Your task to perform on an android device: change the clock style Image 0: 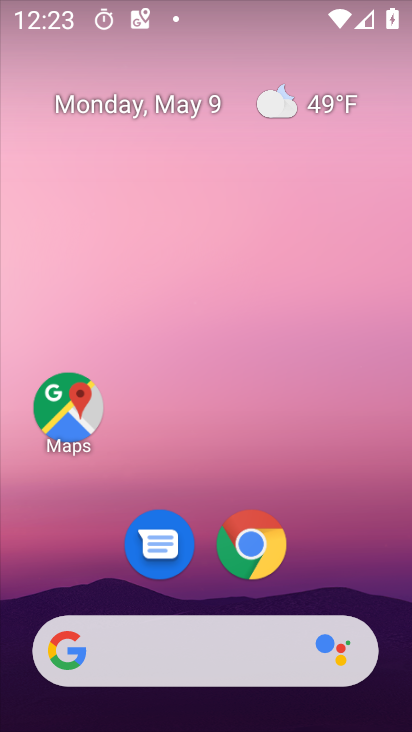
Step 0: drag from (268, 608) to (241, 36)
Your task to perform on an android device: change the clock style Image 1: 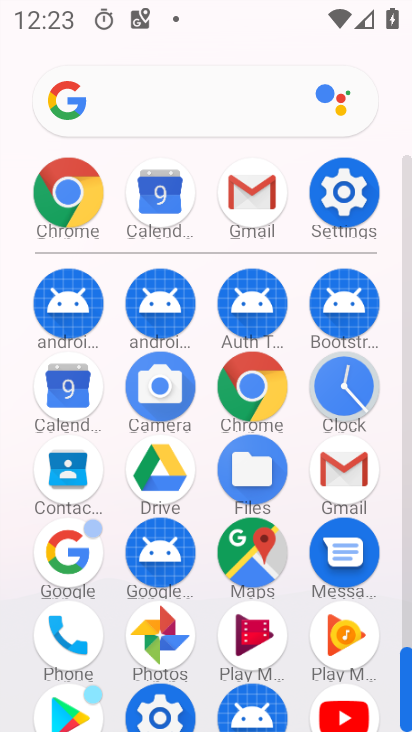
Step 1: click (350, 399)
Your task to perform on an android device: change the clock style Image 2: 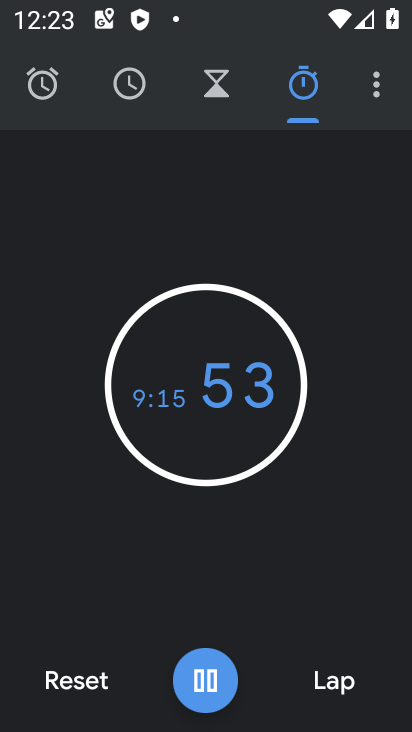
Step 2: click (389, 91)
Your task to perform on an android device: change the clock style Image 3: 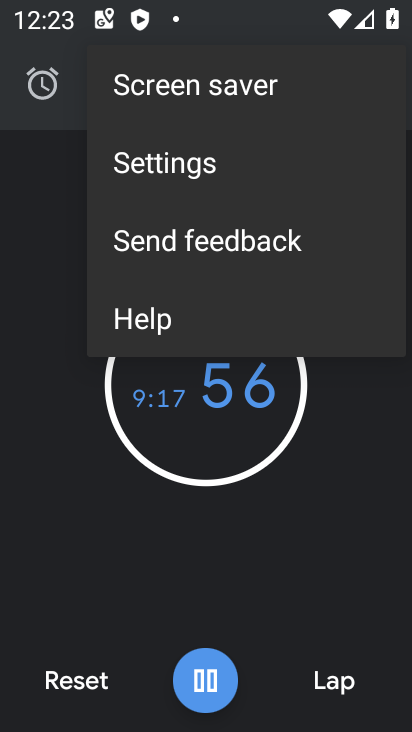
Step 3: click (218, 163)
Your task to perform on an android device: change the clock style Image 4: 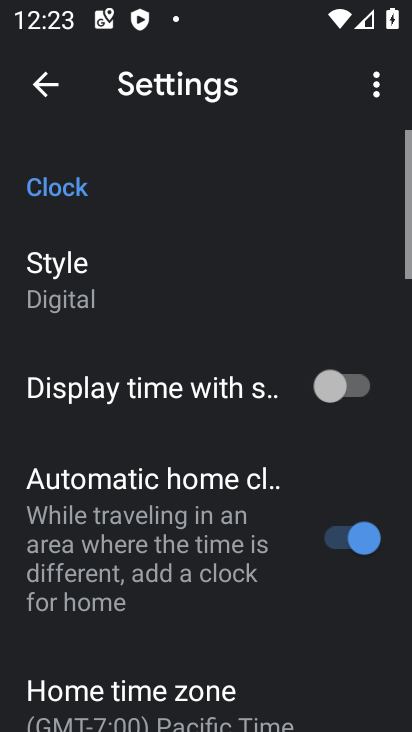
Step 4: drag from (205, 491) to (185, 144)
Your task to perform on an android device: change the clock style Image 5: 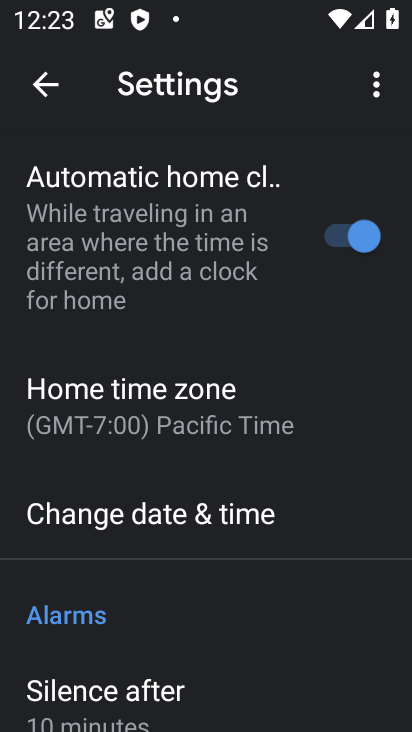
Step 5: drag from (175, 629) to (210, 173)
Your task to perform on an android device: change the clock style Image 6: 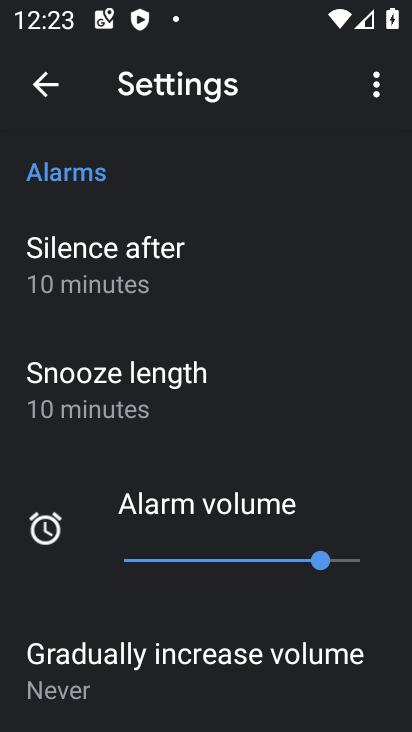
Step 6: drag from (156, 639) to (246, 216)
Your task to perform on an android device: change the clock style Image 7: 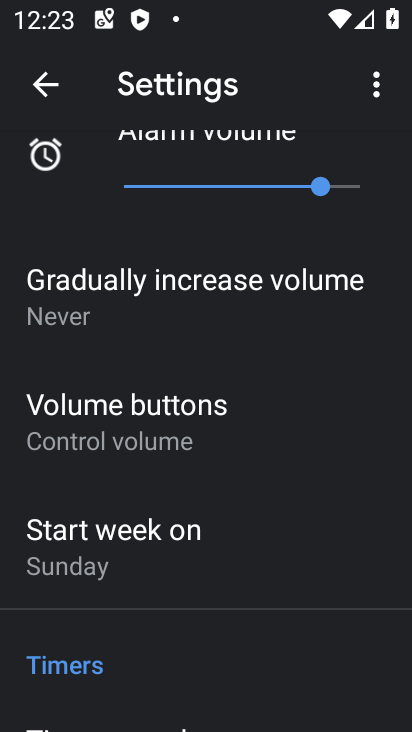
Step 7: drag from (187, 355) to (246, 85)
Your task to perform on an android device: change the clock style Image 8: 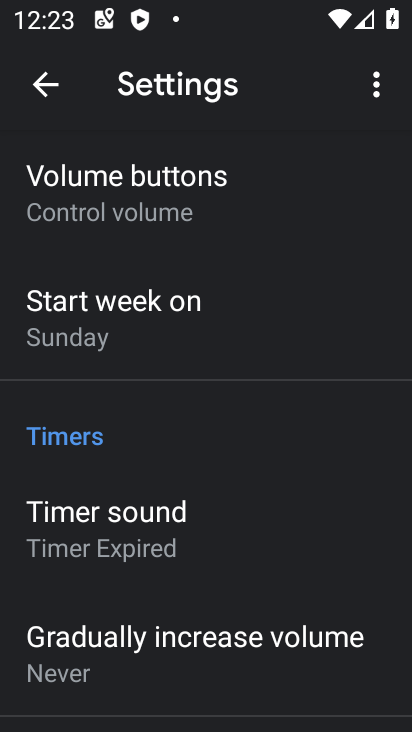
Step 8: drag from (239, 609) to (306, 178)
Your task to perform on an android device: change the clock style Image 9: 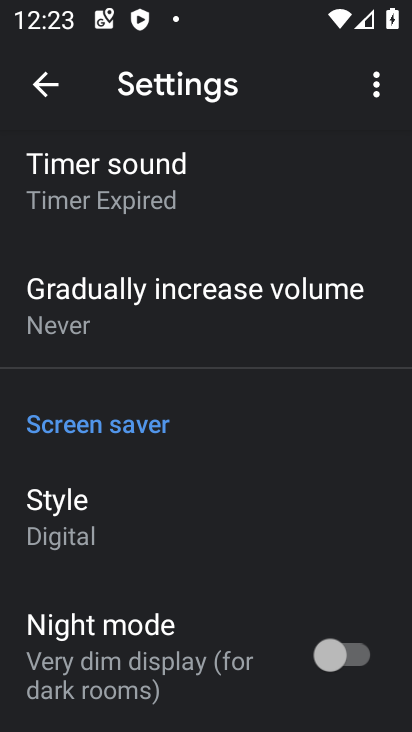
Step 9: click (131, 514)
Your task to perform on an android device: change the clock style Image 10: 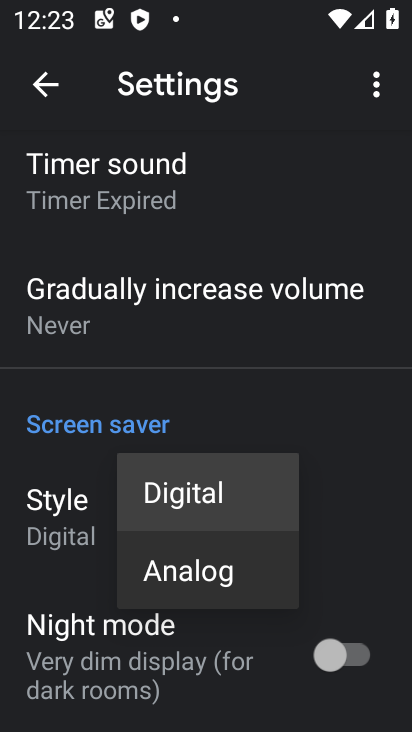
Step 10: click (237, 576)
Your task to perform on an android device: change the clock style Image 11: 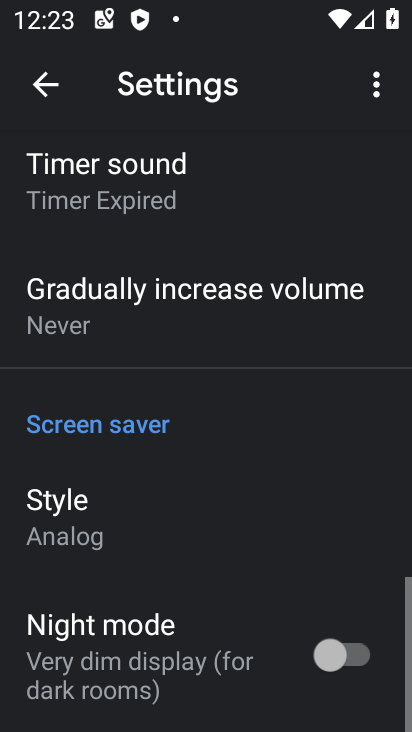
Step 11: task complete